Your task to perform on an android device: Go to accessibility settings Image 0: 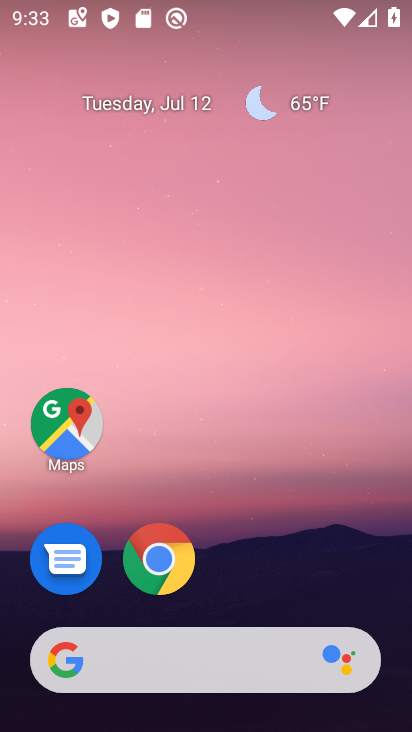
Step 0: drag from (359, 576) to (329, 100)
Your task to perform on an android device: Go to accessibility settings Image 1: 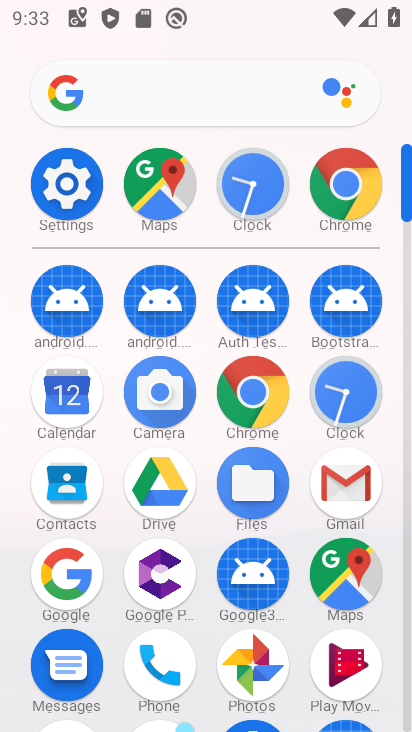
Step 1: click (77, 187)
Your task to perform on an android device: Go to accessibility settings Image 2: 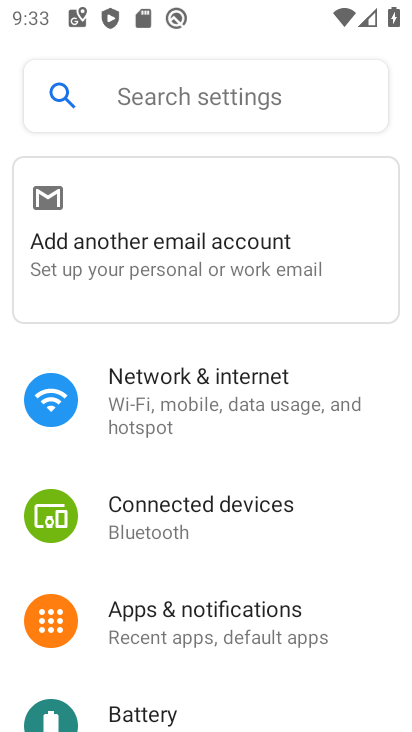
Step 2: drag from (369, 525) to (368, 374)
Your task to perform on an android device: Go to accessibility settings Image 3: 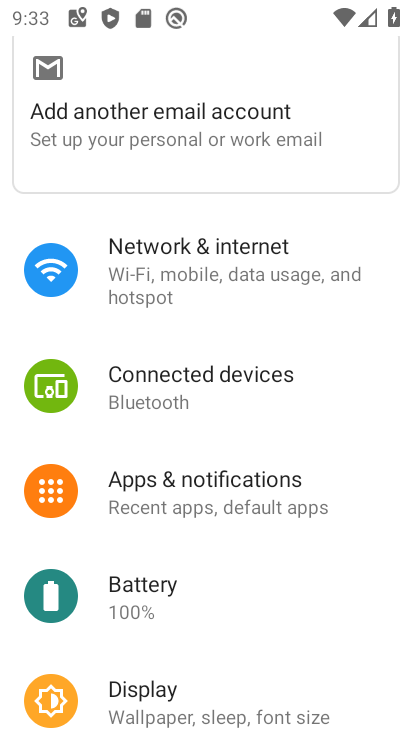
Step 3: drag from (362, 533) to (363, 437)
Your task to perform on an android device: Go to accessibility settings Image 4: 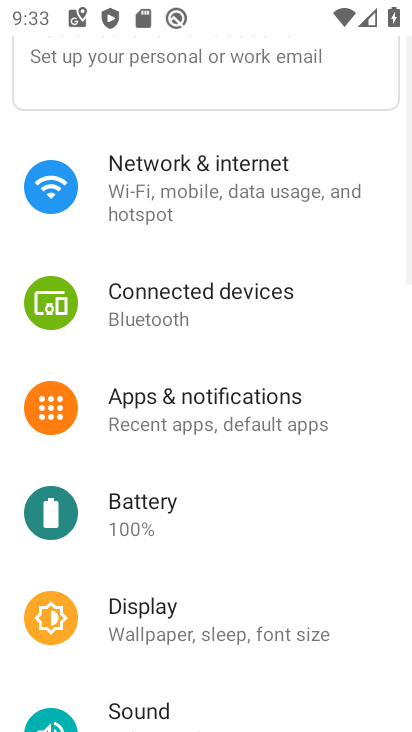
Step 4: drag from (348, 536) to (347, 431)
Your task to perform on an android device: Go to accessibility settings Image 5: 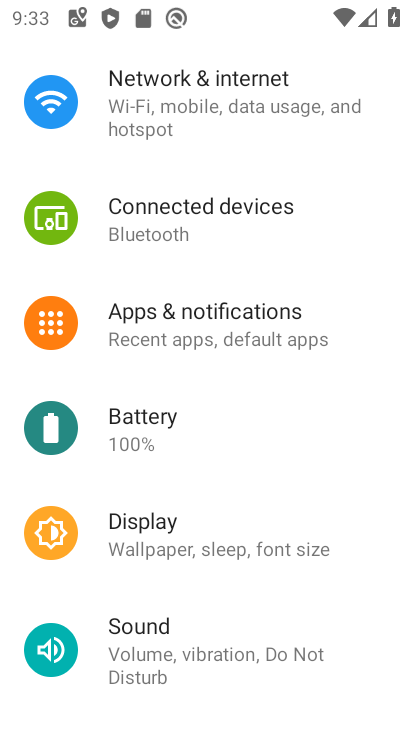
Step 5: drag from (358, 534) to (356, 399)
Your task to perform on an android device: Go to accessibility settings Image 6: 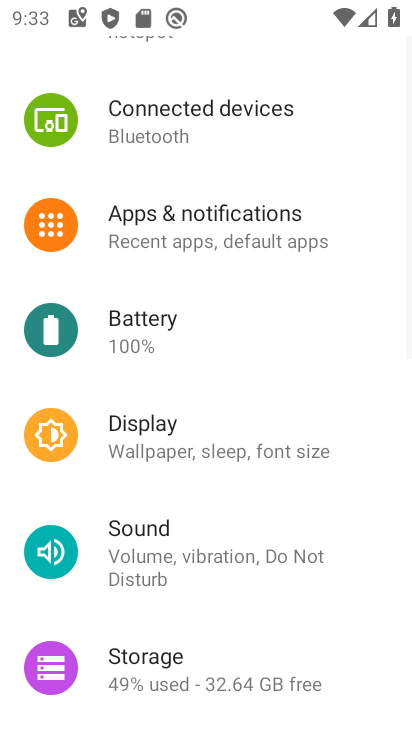
Step 6: drag from (360, 466) to (356, 367)
Your task to perform on an android device: Go to accessibility settings Image 7: 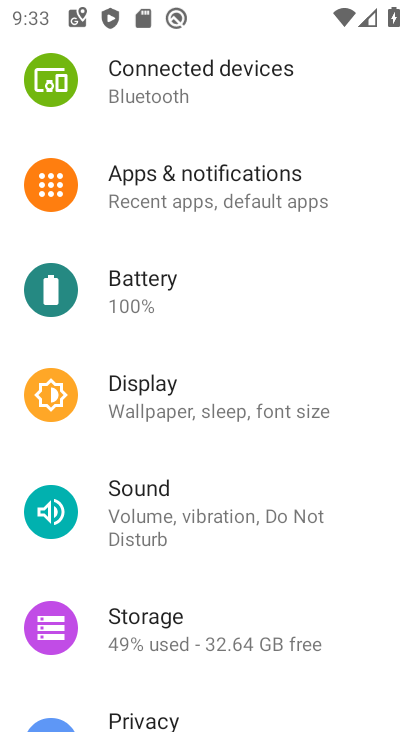
Step 7: drag from (358, 527) to (371, 388)
Your task to perform on an android device: Go to accessibility settings Image 8: 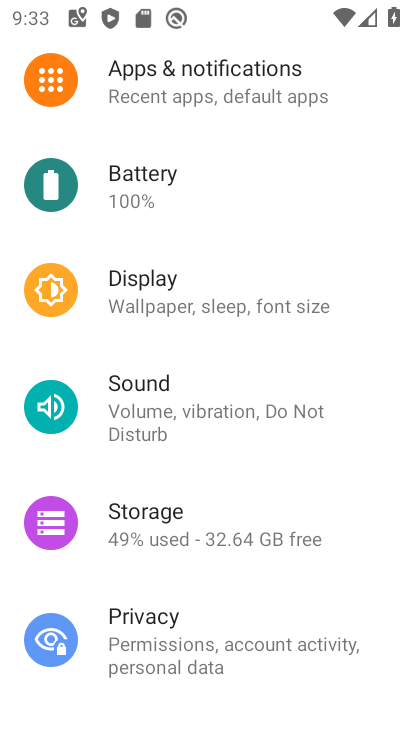
Step 8: drag from (361, 502) to (365, 366)
Your task to perform on an android device: Go to accessibility settings Image 9: 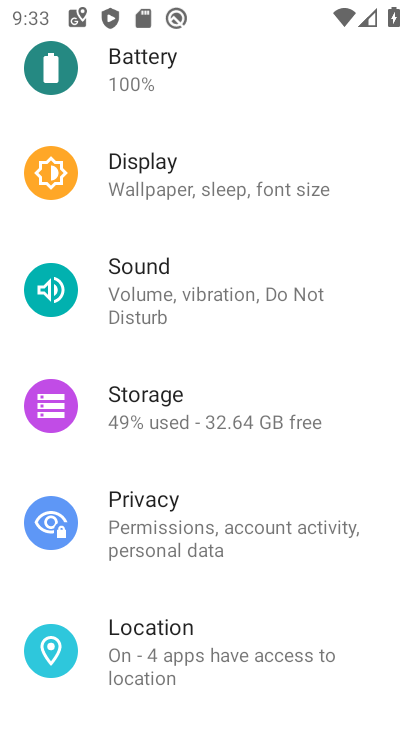
Step 9: drag from (355, 437) to (344, 332)
Your task to perform on an android device: Go to accessibility settings Image 10: 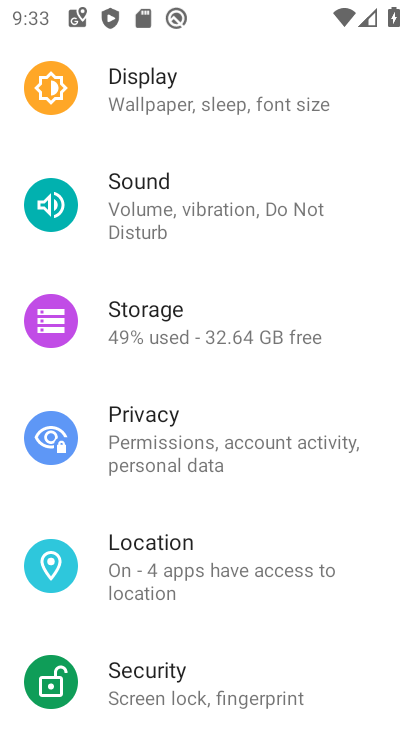
Step 10: drag from (342, 557) to (343, 412)
Your task to perform on an android device: Go to accessibility settings Image 11: 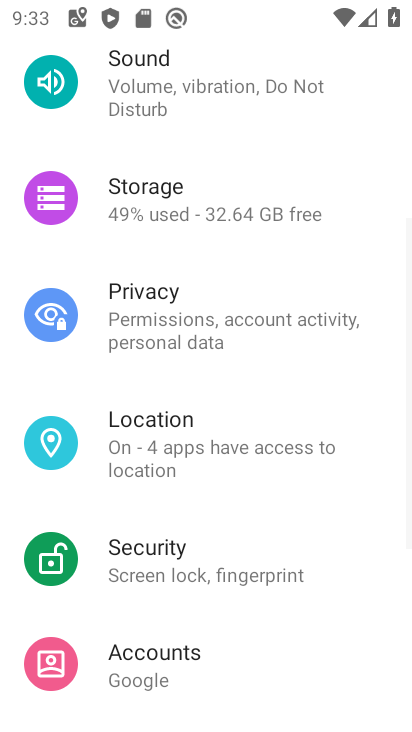
Step 11: drag from (350, 542) to (347, 345)
Your task to perform on an android device: Go to accessibility settings Image 12: 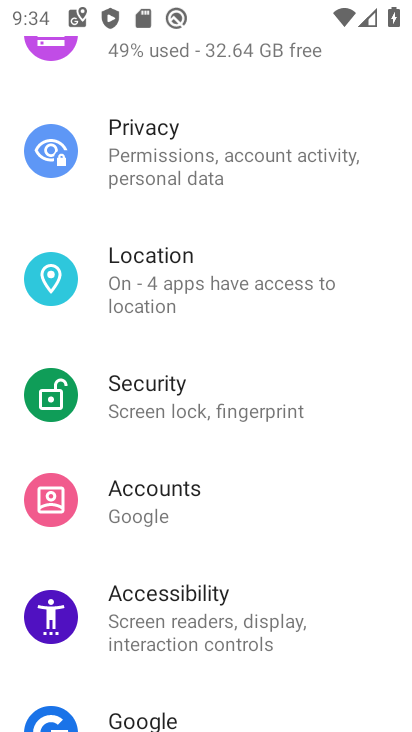
Step 12: click (303, 608)
Your task to perform on an android device: Go to accessibility settings Image 13: 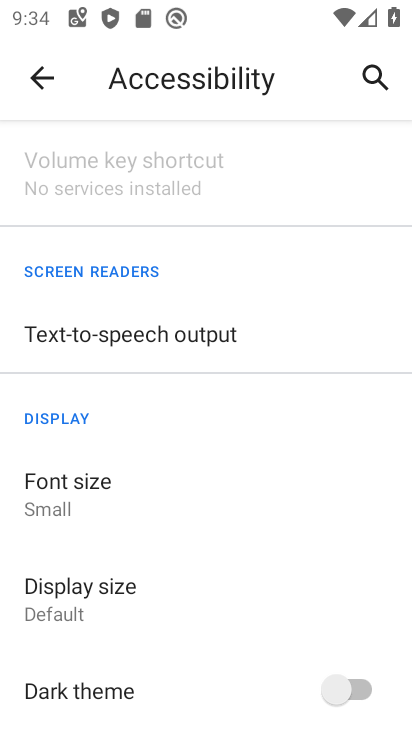
Step 13: task complete